Your task to perform on an android device: Go to sound settings Image 0: 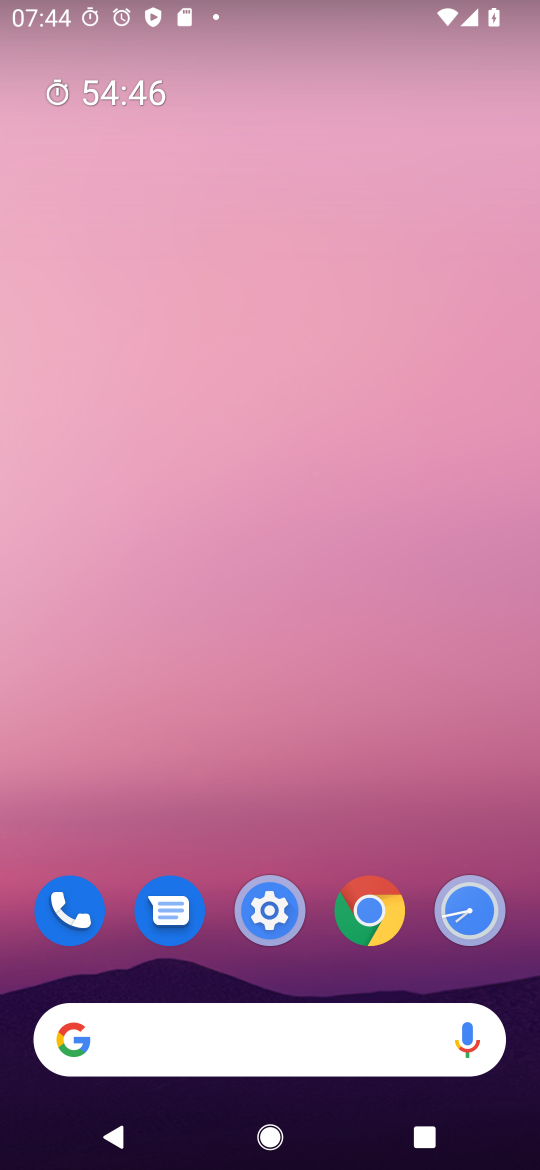
Step 0: drag from (322, 1032) to (298, 156)
Your task to perform on an android device: Go to sound settings Image 1: 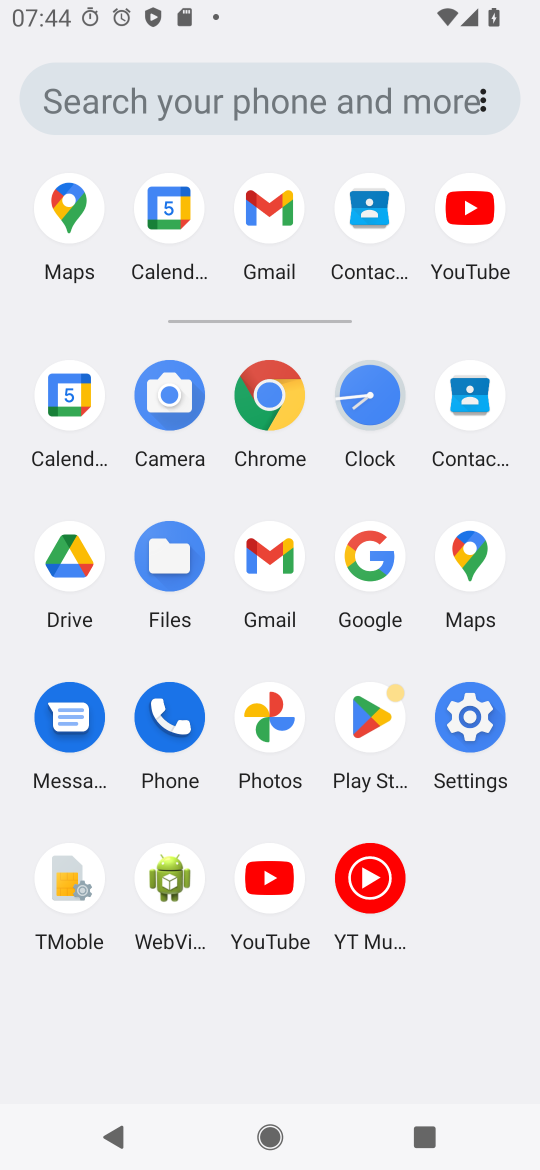
Step 1: click (465, 703)
Your task to perform on an android device: Go to sound settings Image 2: 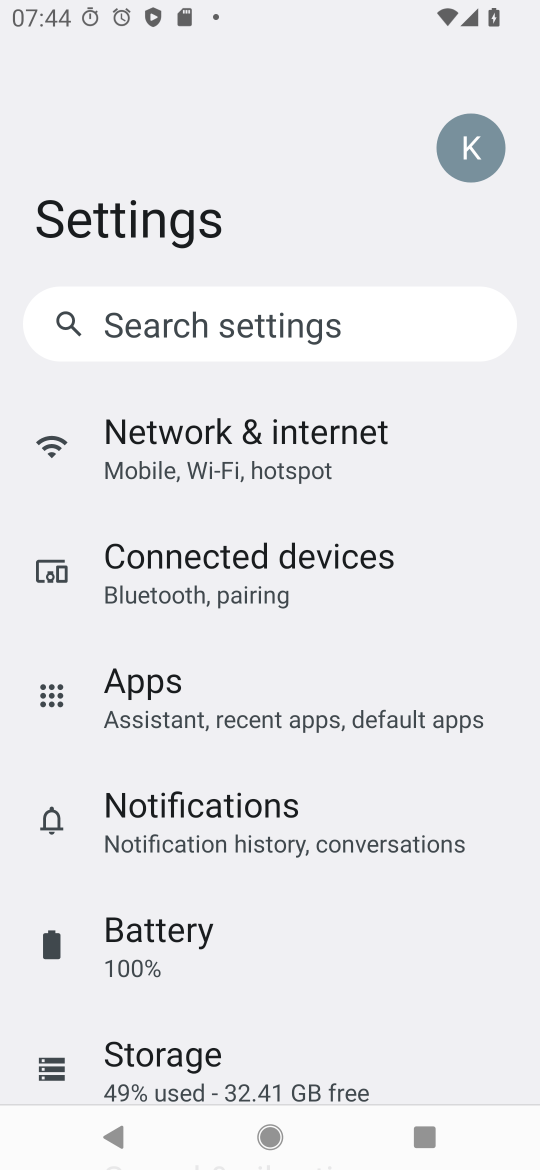
Step 2: drag from (225, 996) to (250, 487)
Your task to perform on an android device: Go to sound settings Image 3: 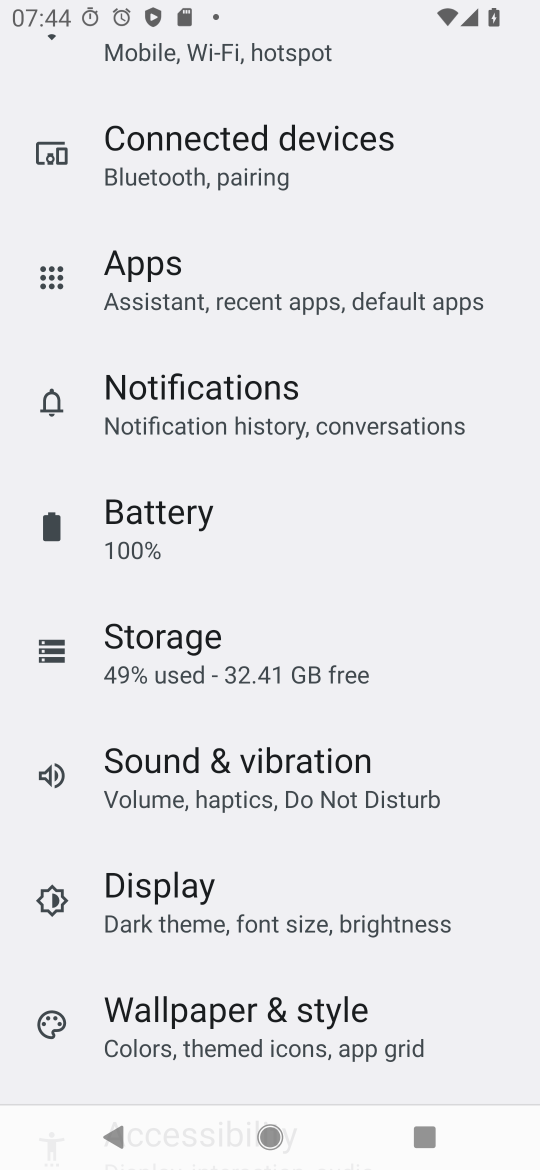
Step 3: click (236, 743)
Your task to perform on an android device: Go to sound settings Image 4: 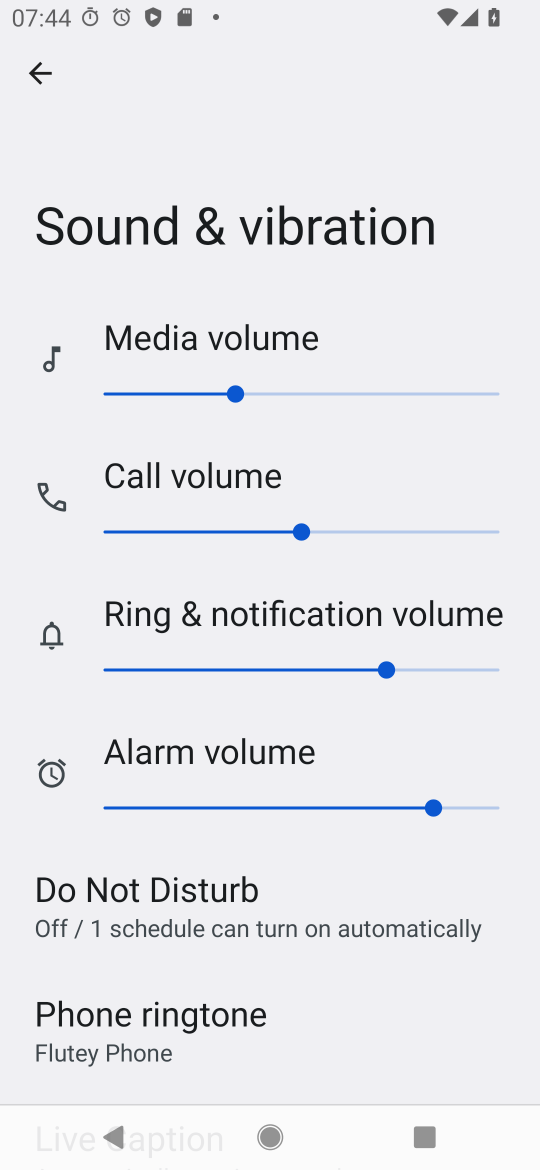
Step 4: task complete